Your task to perform on an android device: add a contact Image 0: 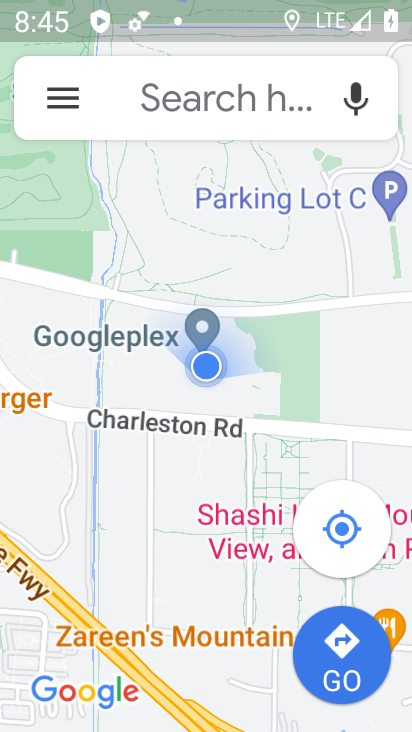
Step 0: press home button
Your task to perform on an android device: add a contact Image 1: 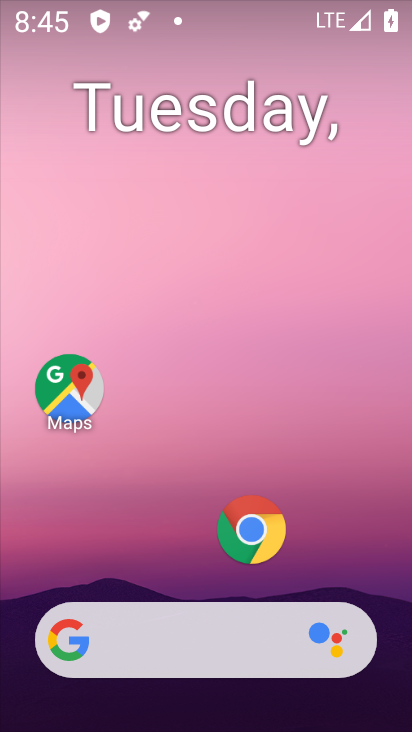
Step 1: drag from (196, 578) to (208, 28)
Your task to perform on an android device: add a contact Image 2: 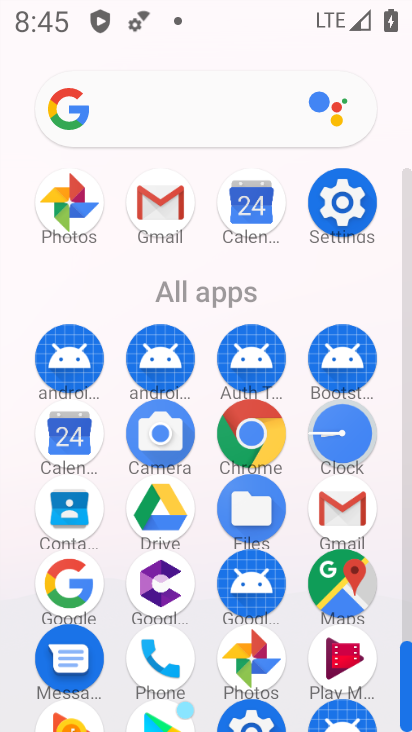
Step 2: click (62, 497)
Your task to perform on an android device: add a contact Image 3: 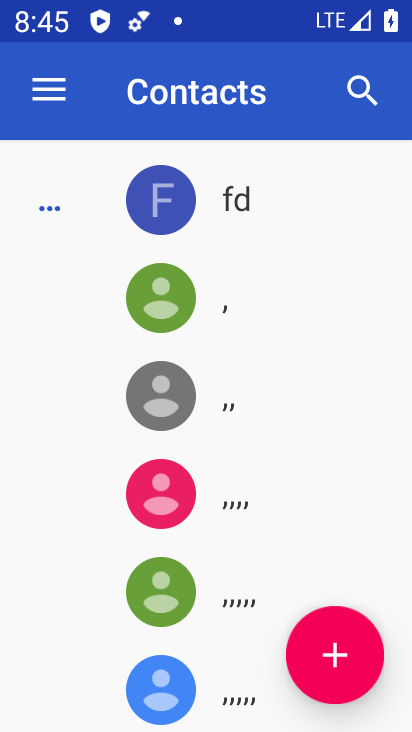
Step 3: click (314, 646)
Your task to perform on an android device: add a contact Image 4: 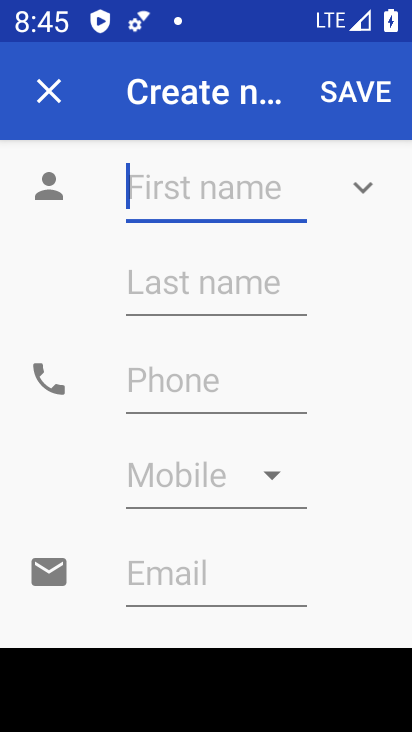
Step 4: type "vcrdyghbj"
Your task to perform on an android device: add a contact Image 5: 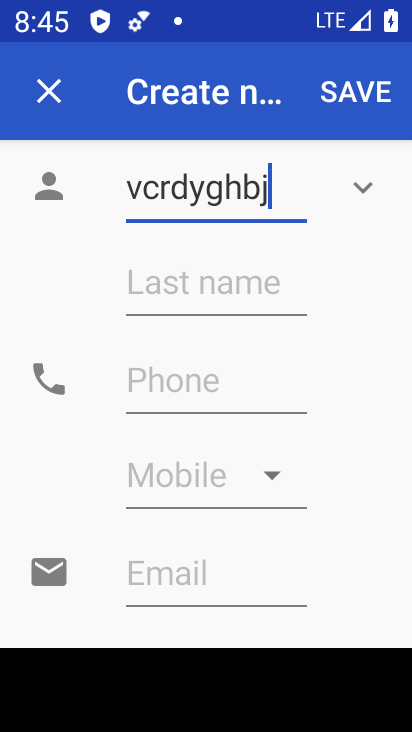
Step 5: click (319, 99)
Your task to perform on an android device: add a contact Image 6: 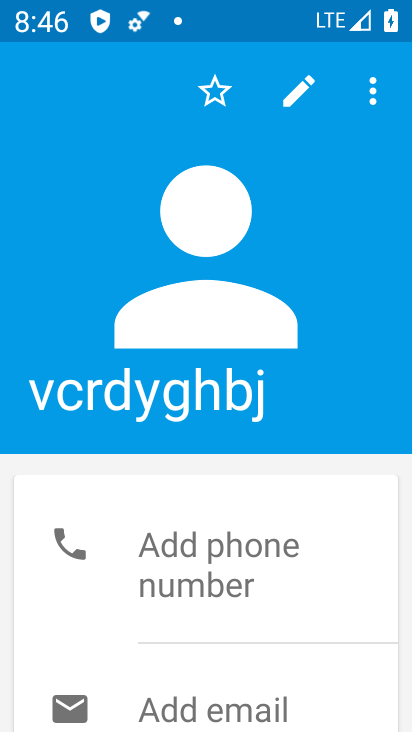
Step 6: task complete